Your task to perform on an android device: Go to Wikipedia Image 0: 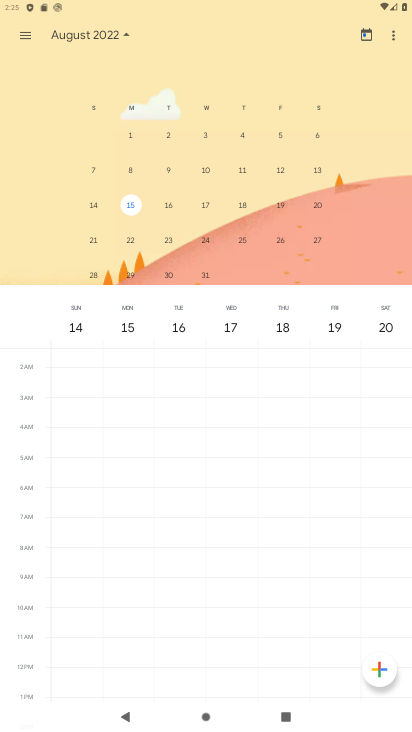
Step 0: press home button
Your task to perform on an android device: Go to Wikipedia Image 1: 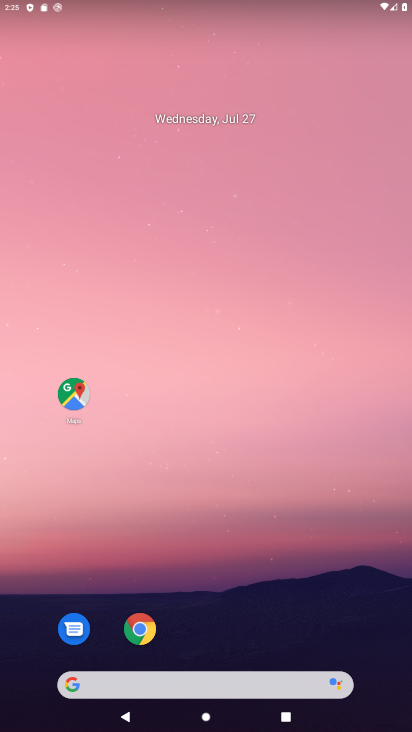
Step 1: click (146, 631)
Your task to perform on an android device: Go to Wikipedia Image 2: 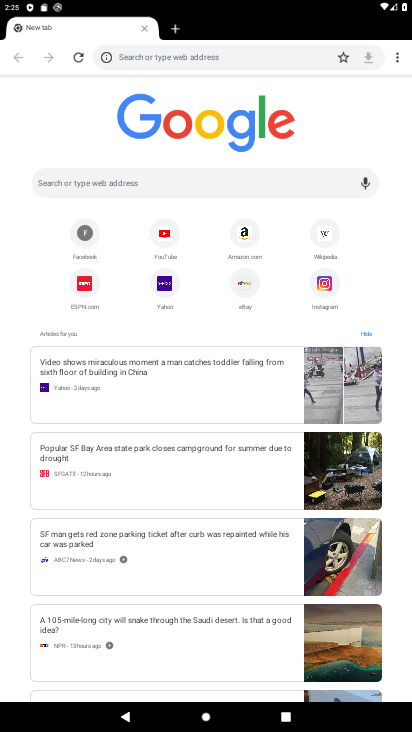
Step 2: click (333, 236)
Your task to perform on an android device: Go to Wikipedia Image 3: 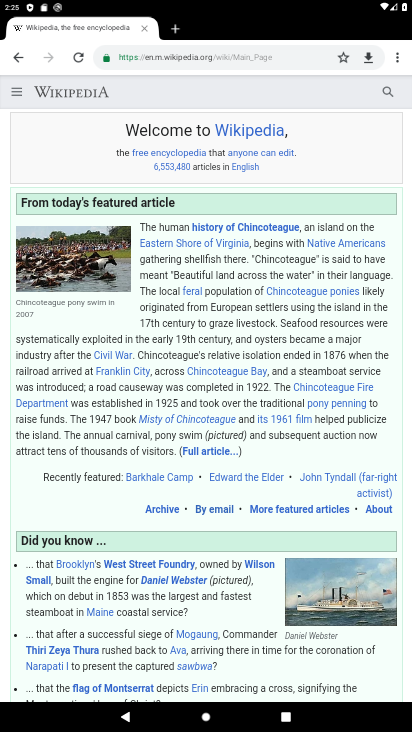
Step 3: task complete